Your task to perform on an android device: move a message to another label in the gmail app Image 0: 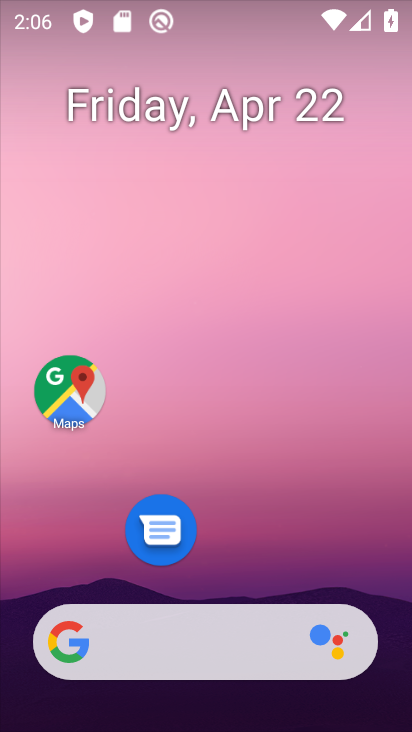
Step 0: drag from (261, 570) to (176, 8)
Your task to perform on an android device: move a message to another label in the gmail app Image 1: 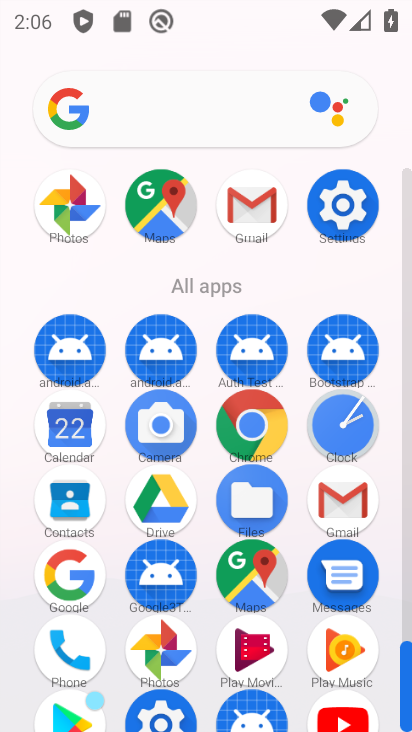
Step 1: click (248, 198)
Your task to perform on an android device: move a message to another label in the gmail app Image 2: 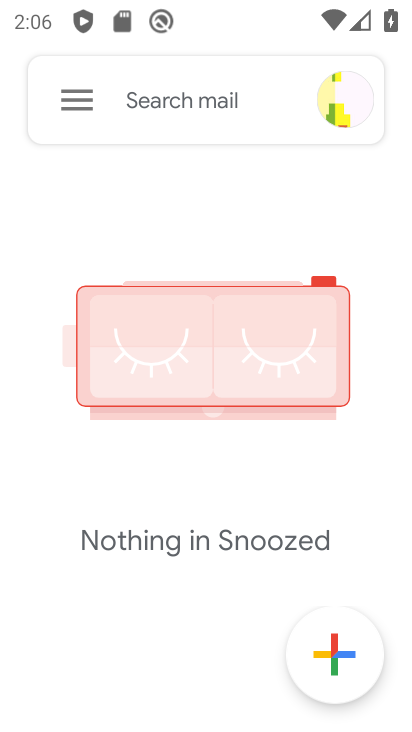
Step 2: click (80, 88)
Your task to perform on an android device: move a message to another label in the gmail app Image 3: 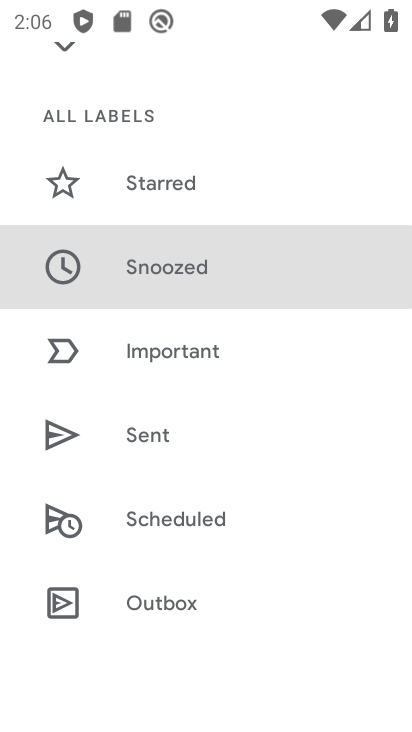
Step 3: drag from (248, 572) to (199, 4)
Your task to perform on an android device: move a message to another label in the gmail app Image 4: 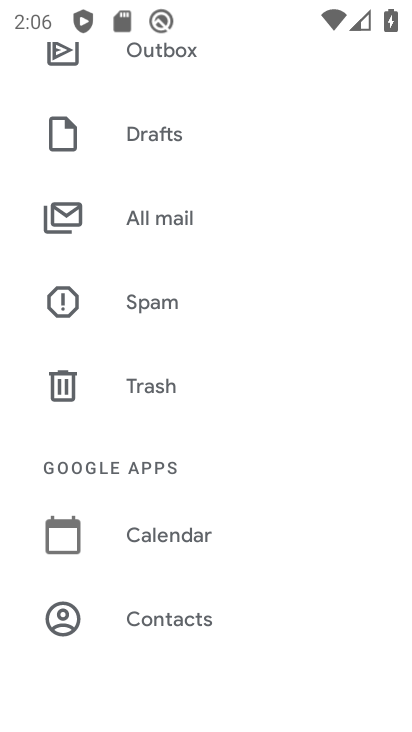
Step 4: click (155, 216)
Your task to perform on an android device: move a message to another label in the gmail app Image 5: 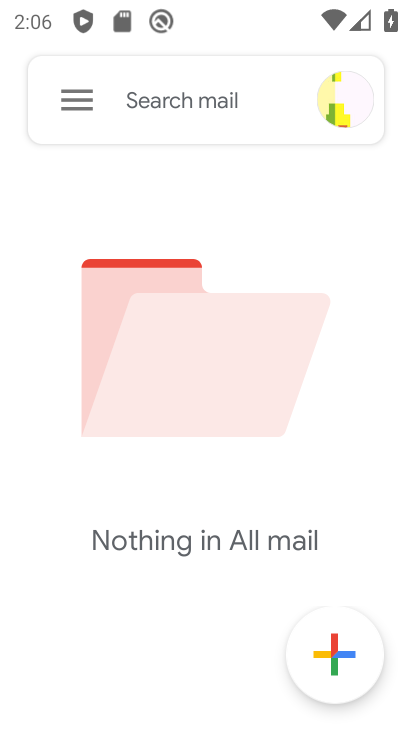
Step 5: task complete